Your task to perform on an android device: Open privacy settings Image 0: 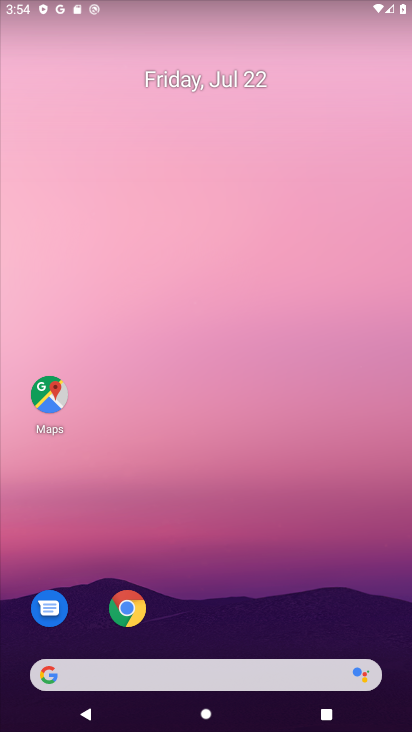
Step 0: task complete